Your task to perform on an android device: clear history in the chrome app Image 0: 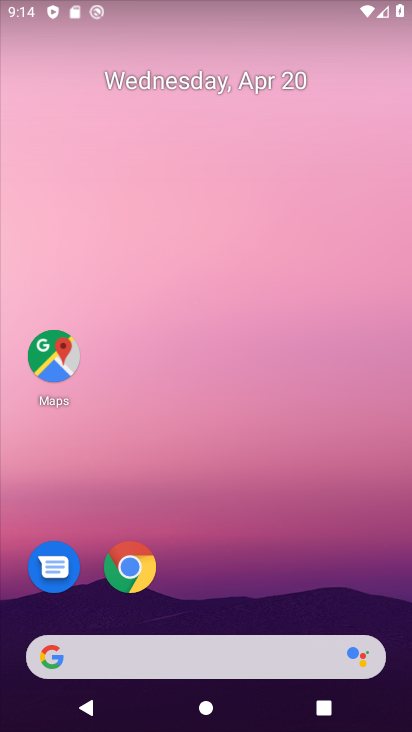
Step 0: click (132, 562)
Your task to perform on an android device: clear history in the chrome app Image 1: 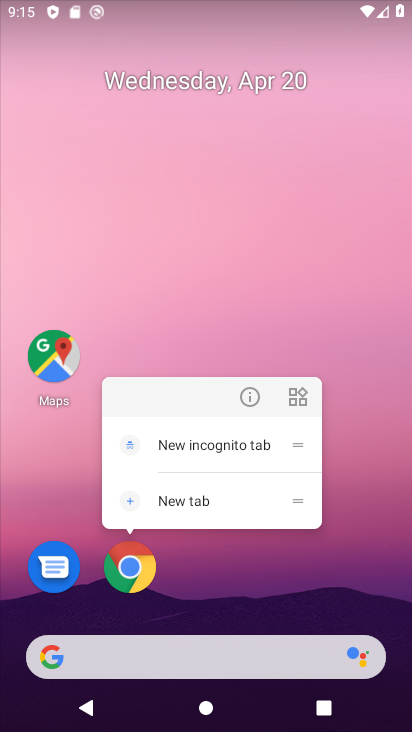
Step 1: click (135, 582)
Your task to perform on an android device: clear history in the chrome app Image 2: 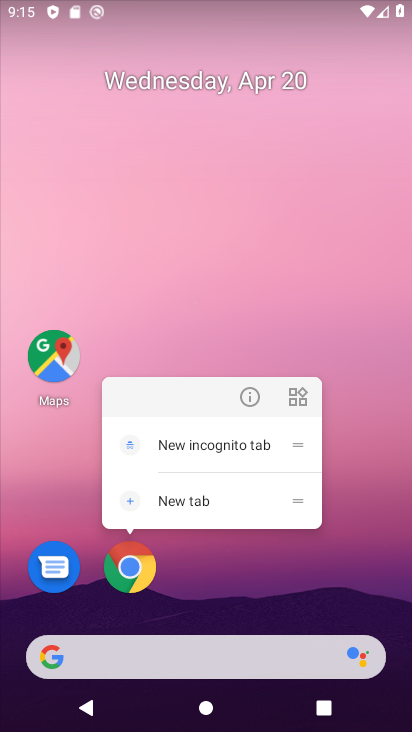
Step 2: click (135, 570)
Your task to perform on an android device: clear history in the chrome app Image 3: 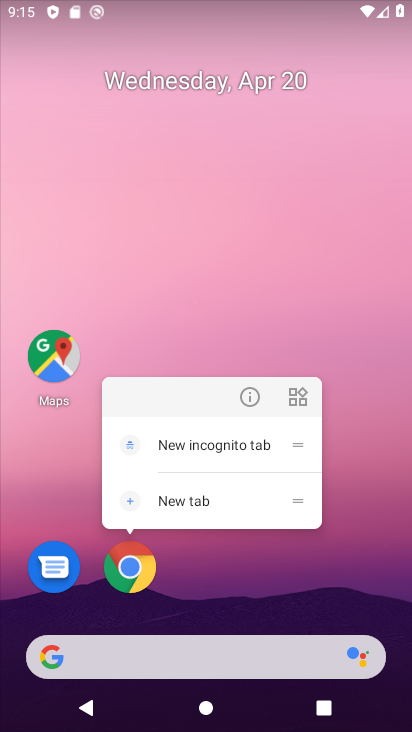
Step 3: click (134, 567)
Your task to perform on an android device: clear history in the chrome app Image 4: 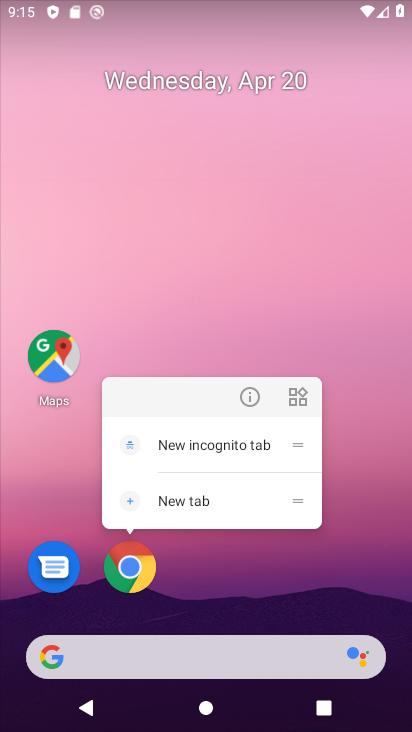
Step 4: click (129, 556)
Your task to perform on an android device: clear history in the chrome app Image 5: 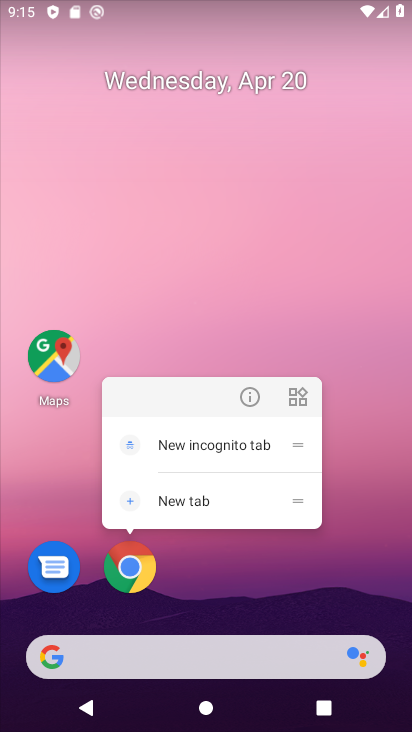
Step 5: click (132, 561)
Your task to perform on an android device: clear history in the chrome app Image 6: 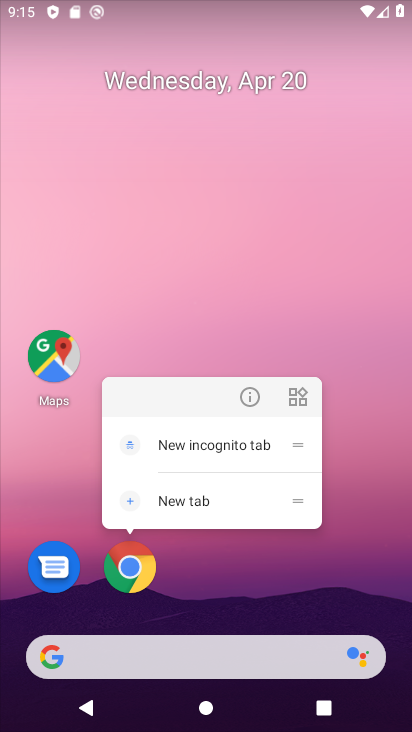
Step 6: click (135, 571)
Your task to perform on an android device: clear history in the chrome app Image 7: 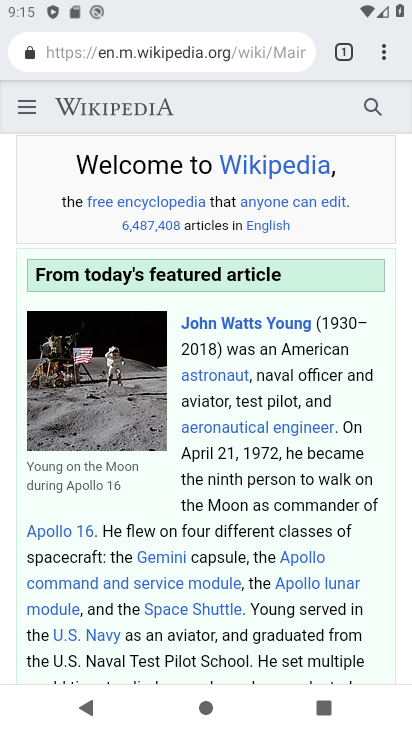
Step 7: drag from (380, 41) to (214, 352)
Your task to perform on an android device: clear history in the chrome app Image 8: 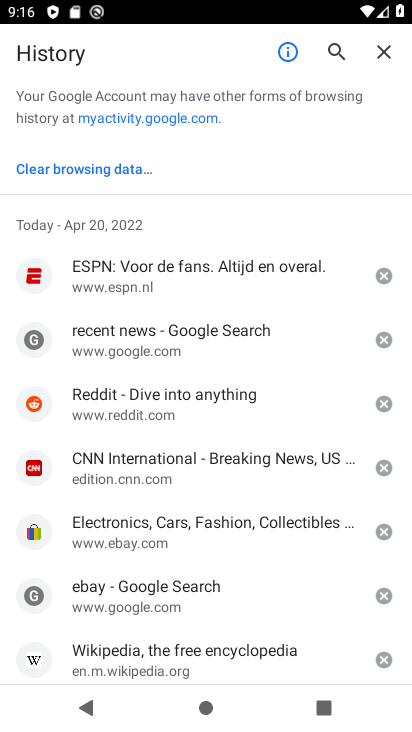
Step 8: click (62, 169)
Your task to perform on an android device: clear history in the chrome app Image 9: 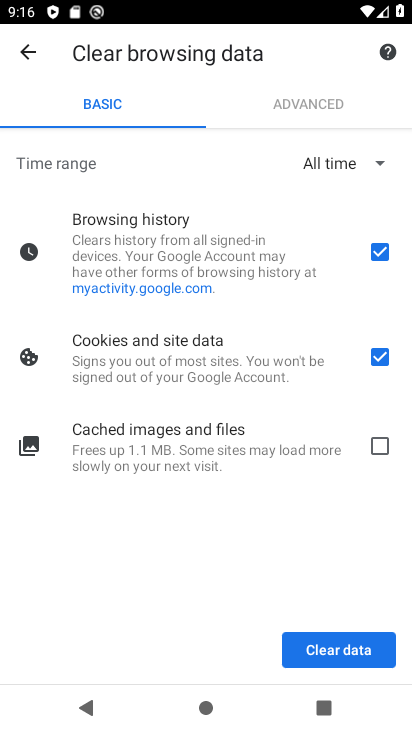
Step 9: click (335, 657)
Your task to perform on an android device: clear history in the chrome app Image 10: 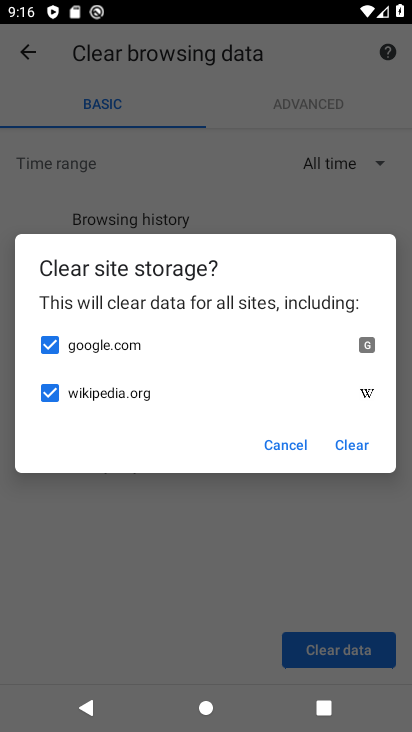
Step 10: click (347, 437)
Your task to perform on an android device: clear history in the chrome app Image 11: 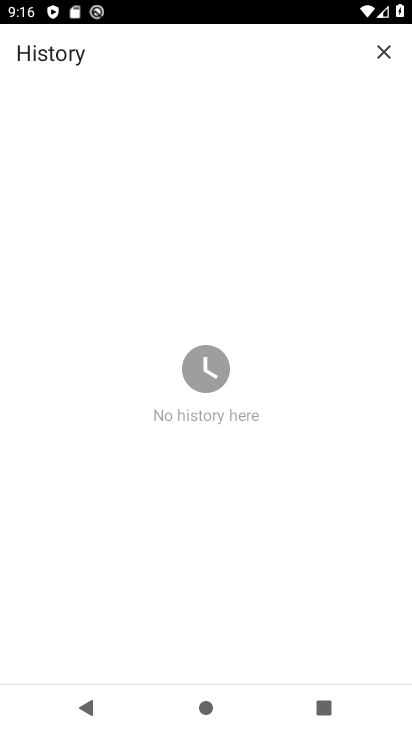
Step 11: task complete